Your task to perform on an android device: Open display settings Image 0: 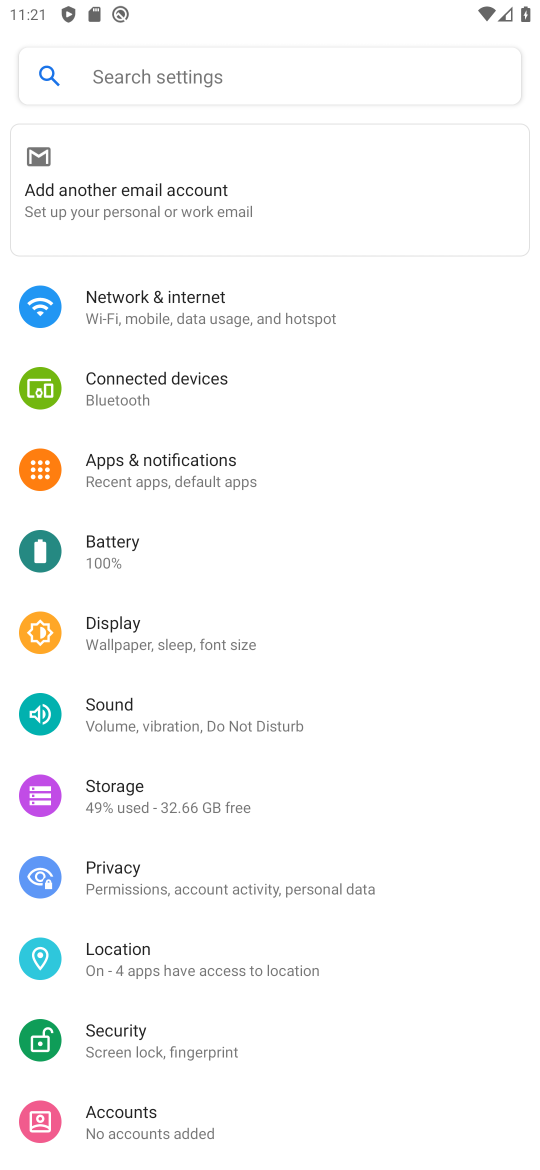
Step 0: click (177, 609)
Your task to perform on an android device: Open display settings Image 1: 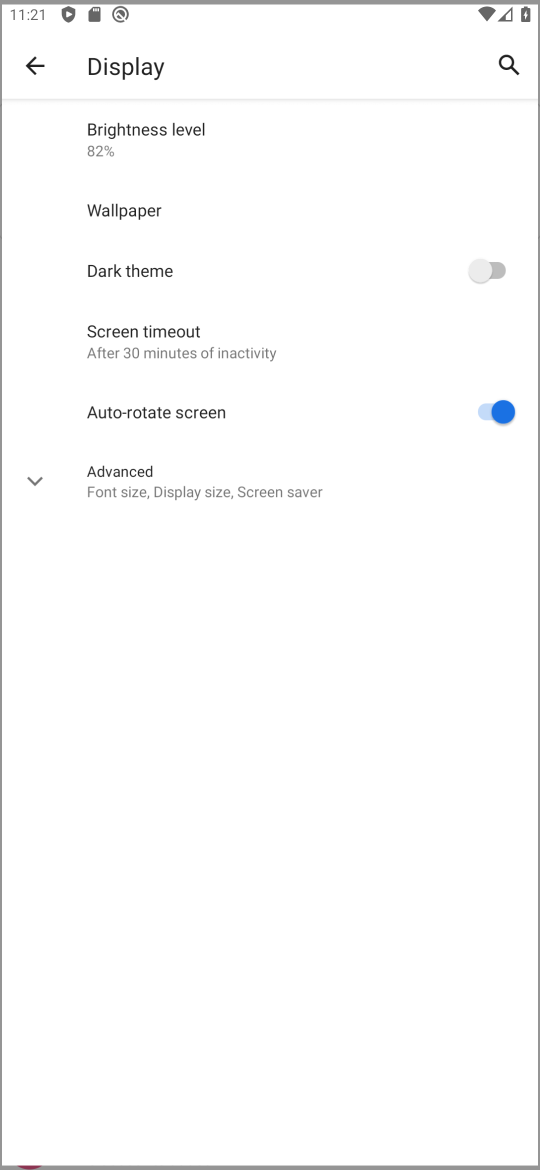
Step 1: task complete